Your task to perform on an android device: Open Yahoo.com Image 0: 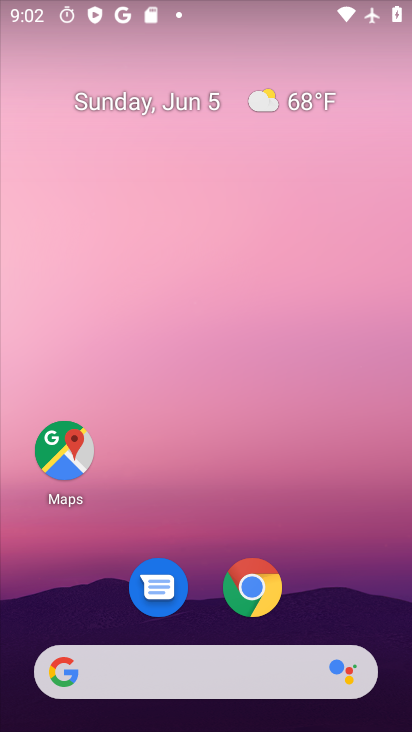
Step 0: click (239, 580)
Your task to perform on an android device: Open Yahoo.com Image 1: 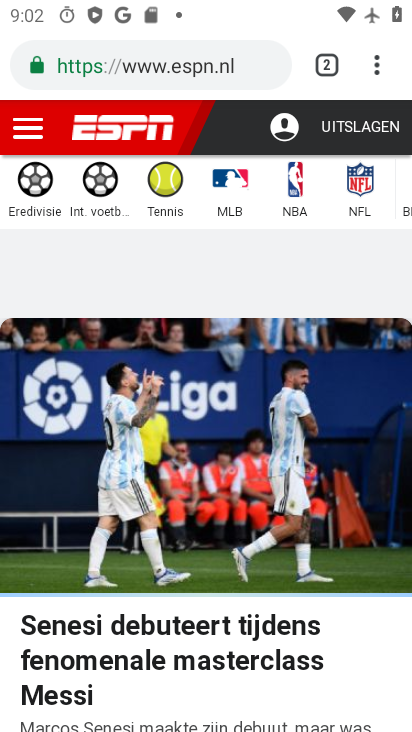
Step 1: click (223, 65)
Your task to perform on an android device: Open Yahoo.com Image 2: 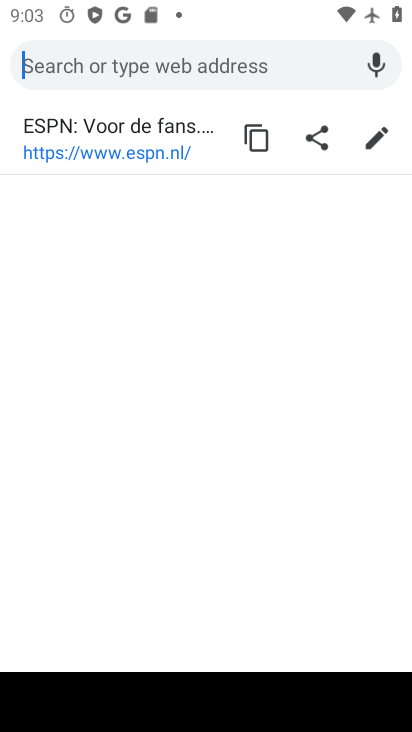
Step 2: type "yahoo.com"
Your task to perform on an android device: Open Yahoo.com Image 3: 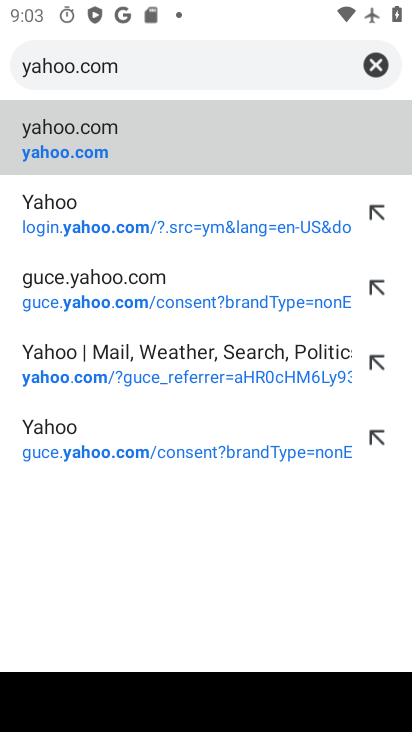
Step 3: click (348, 117)
Your task to perform on an android device: Open Yahoo.com Image 4: 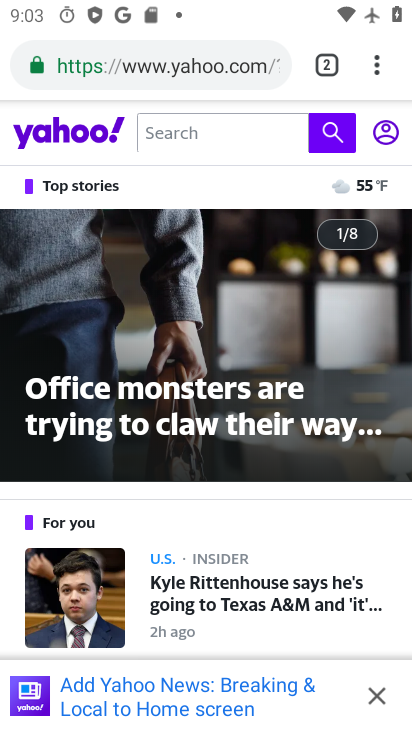
Step 4: task complete